Your task to perform on an android device: turn off notifications settings in the gmail app Image 0: 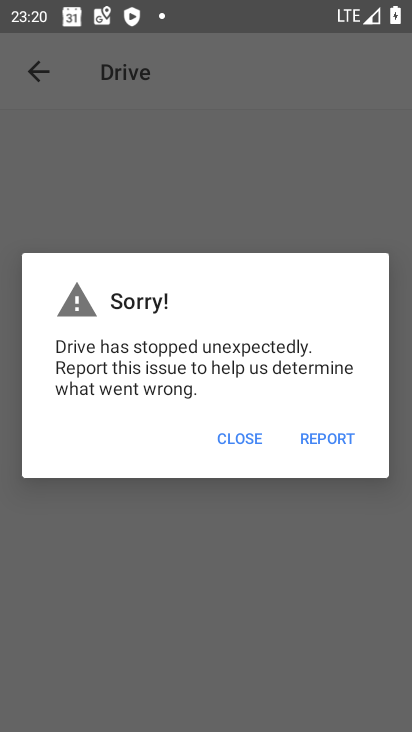
Step 0: press home button
Your task to perform on an android device: turn off notifications settings in the gmail app Image 1: 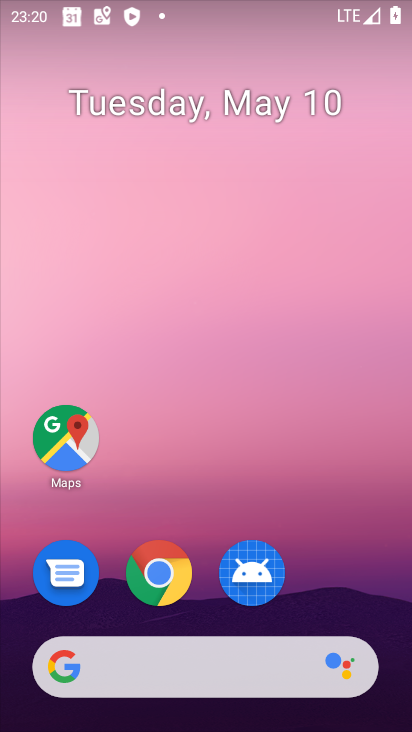
Step 1: drag from (261, 465) to (195, 9)
Your task to perform on an android device: turn off notifications settings in the gmail app Image 2: 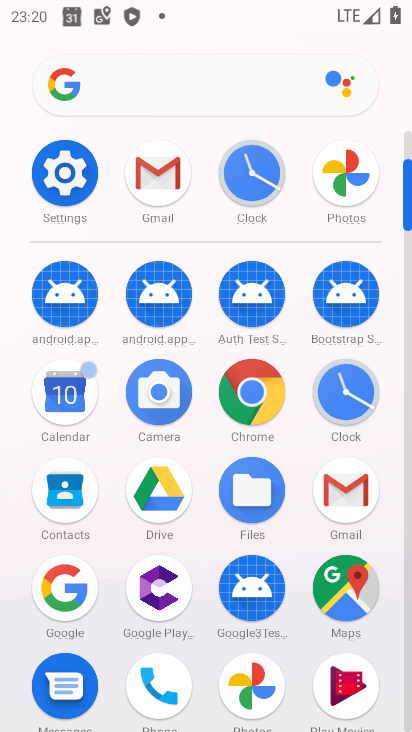
Step 2: click (151, 178)
Your task to perform on an android device: turn off notifications settings in the gmail app Image 3: 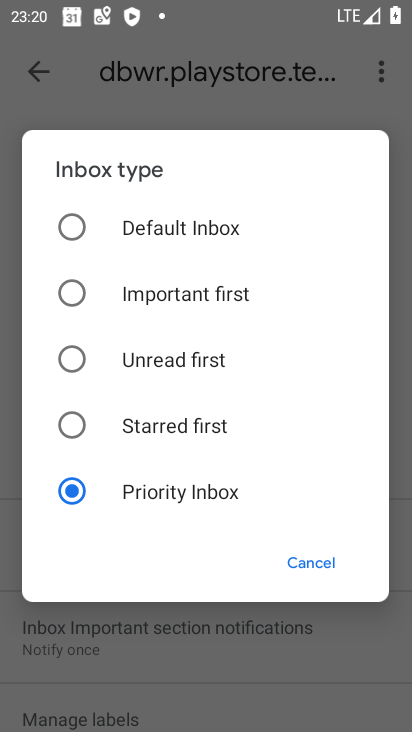
Step 3: click (311, 560)
Your task to perform on an android device: turn off notifications settings in the gmail app Image 4: 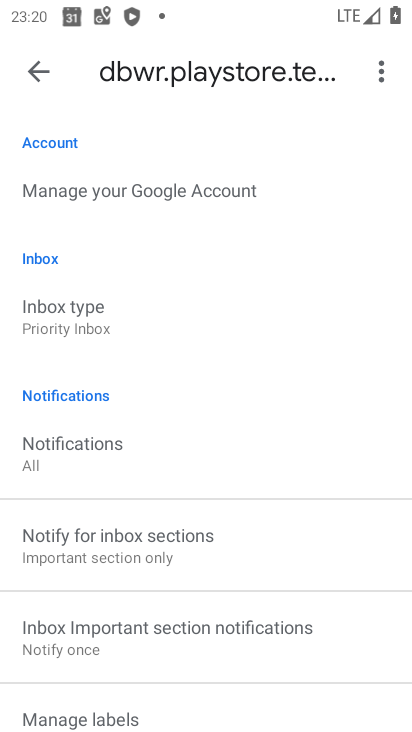
Step 4: click (27, 70)
Your task to perform on an android device: turn off notifications settings in the gmail app Image 5: 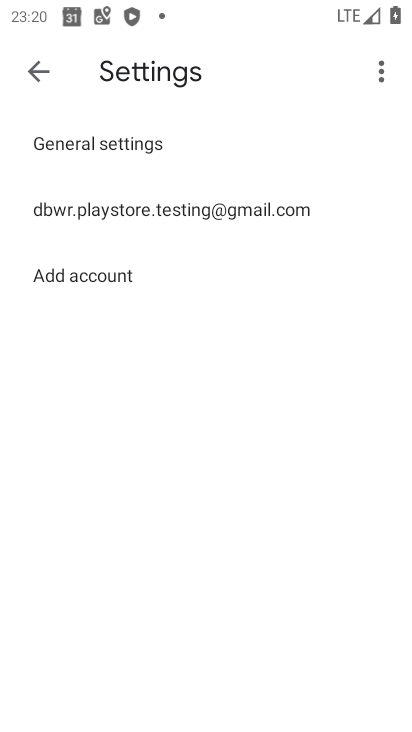
Step 5: click (138, 140)
Your task to perform on an android device: turn off notifications settings in the gmail app Image 6: 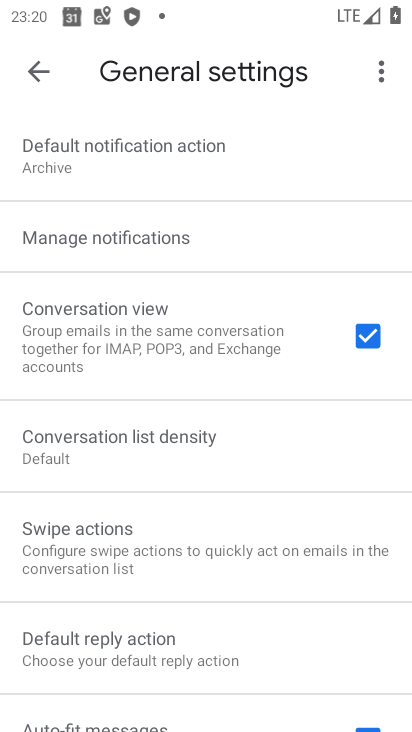
Step 6: click (129, 227)
Your task to perform on an android device: turn off notifications settings in the gmail app Image 7: 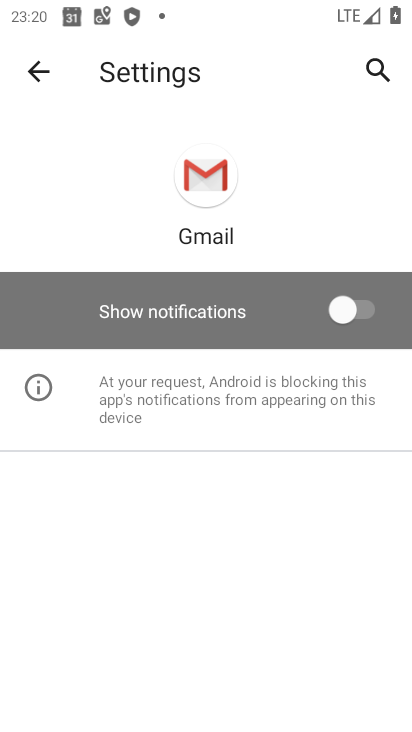
Step 7: task complete